Your task to perform on an android device: Go to eBay Image 0: 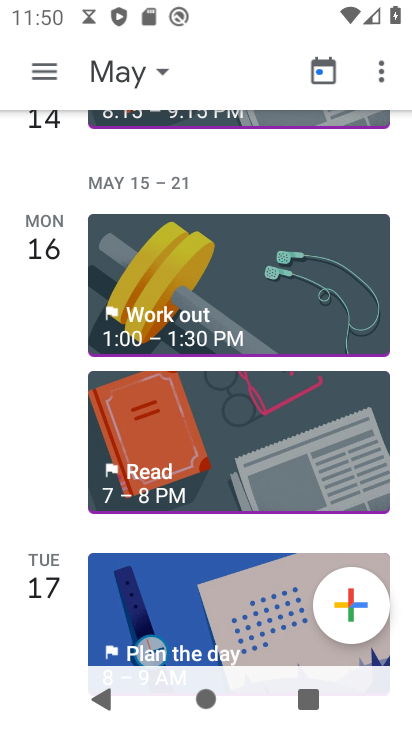
Step 0: press home button
Your task to perform on an android device: Go to eBay Image 1: 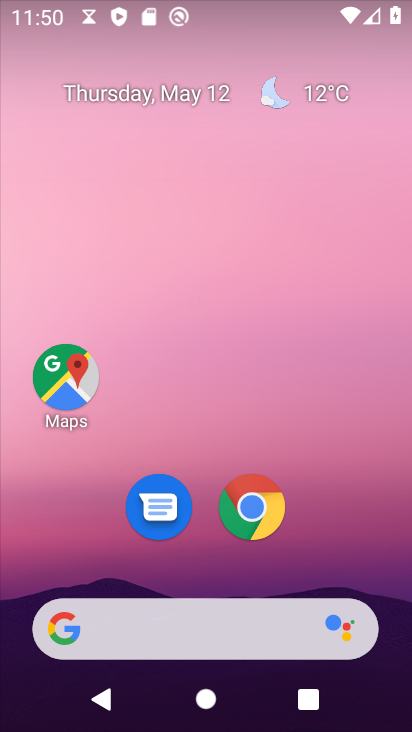
Step 1: click (242, 515)
Your task to perform on an android device: Go to eBay Image 2: 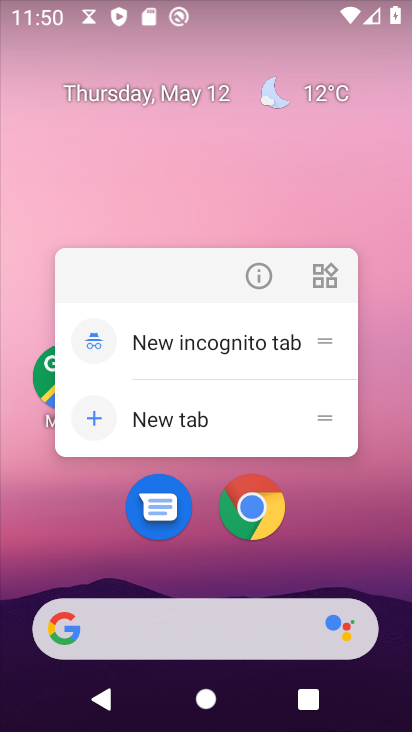
Step 2: click (253, 507)
Your task to perform on an android device: Go to eBay Image 3: 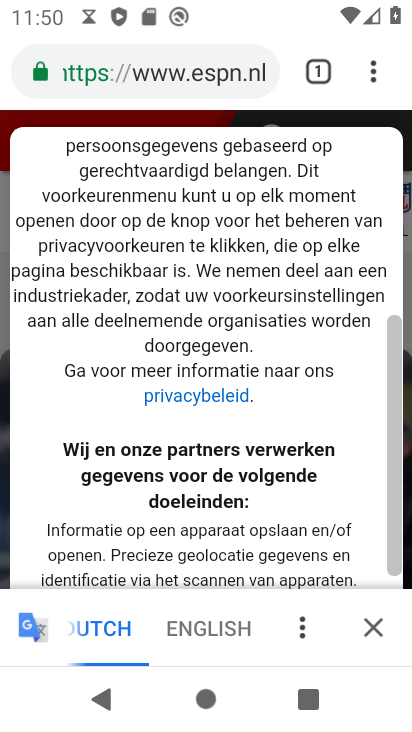
Step 3: click (198, 84)
Your task to perform on an android device: Go to eBay Image 4: 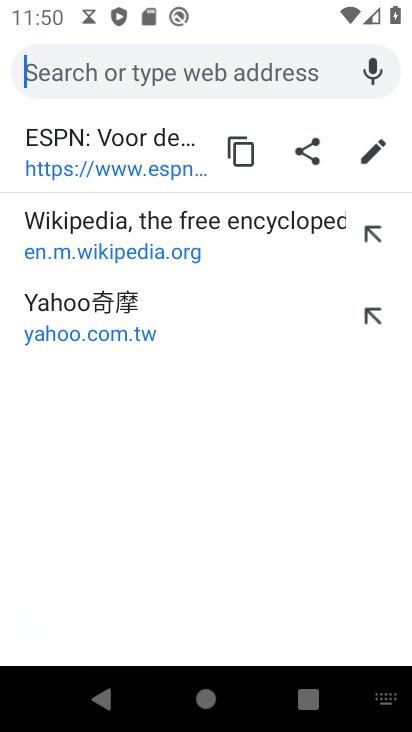
Step 4: click (210, 73)
Your task to perform on an android device: Go to eBay Image 5: 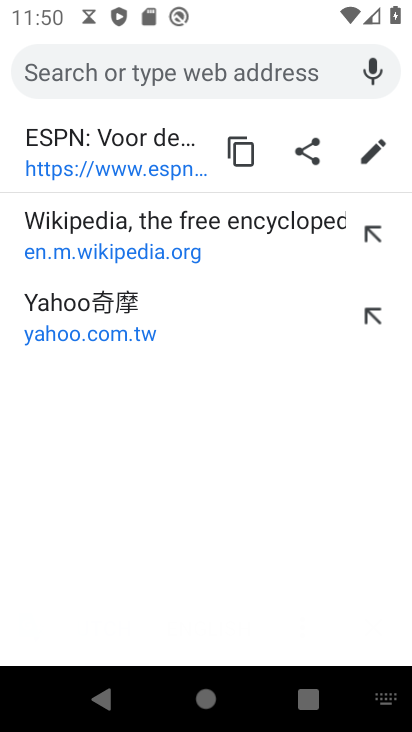
Step 5: type "ebay"
Your task to perform on an android device: Go to eBay Image 6: 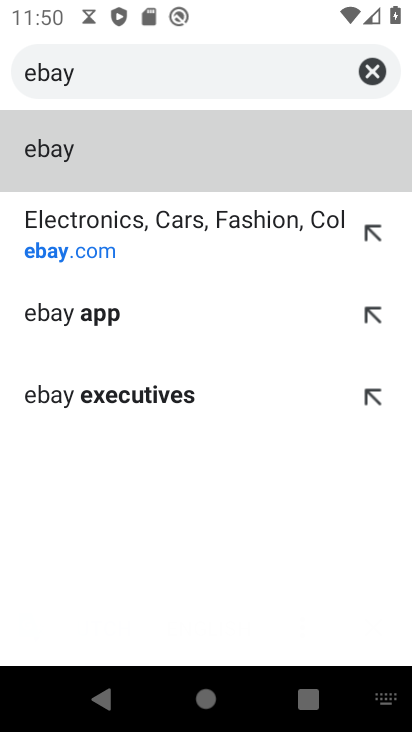
Step 6: click (146, 164)
Your task to perform on an android device: Go to eBay Image 7: 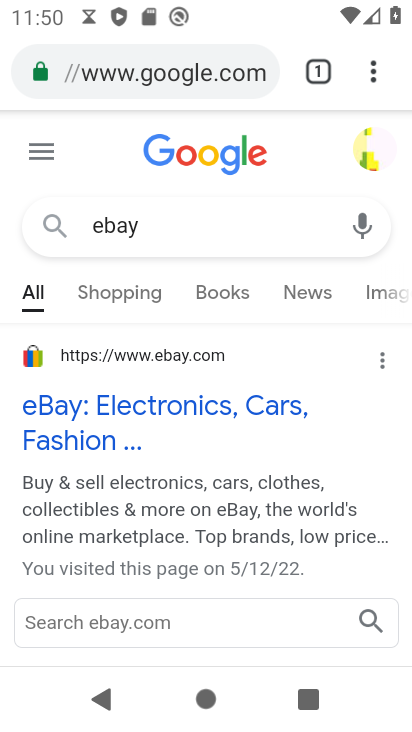
Step 7: click (166, 403)
Your task to perform on an android device: Go to eBay Image 8: 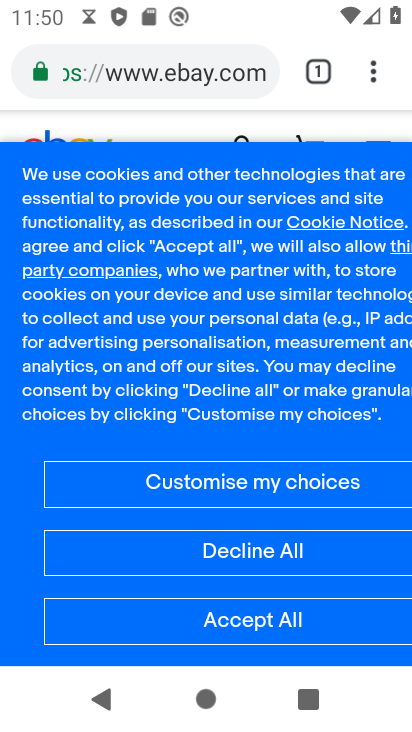
Step 8: task complete